Your task to perform on an android device: turn on data saver in the chrome app Image 0: 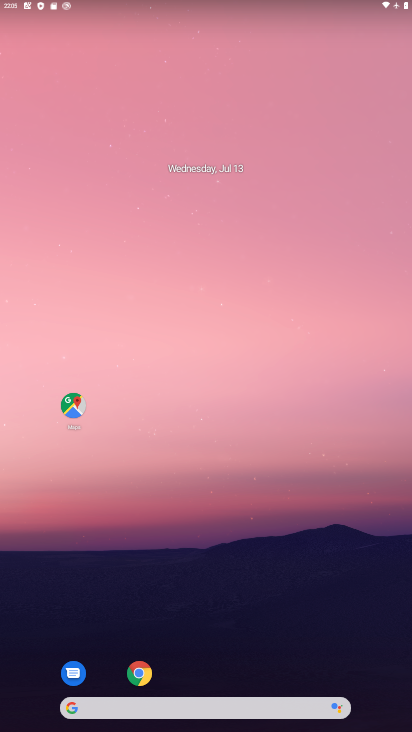
Step 0: click (147, 684)
Your task to perform on an android device: turn on data saver in the chrome app Image 1: 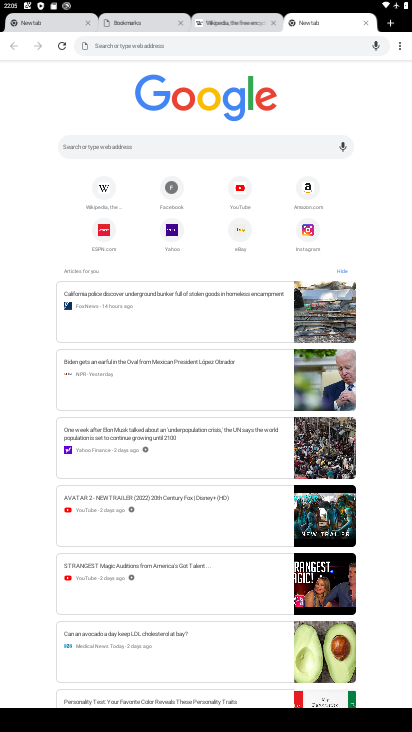
Step 1: click (402, 33)
Your task to perform on an android device: turn on data saver in the chrome app Image 2: 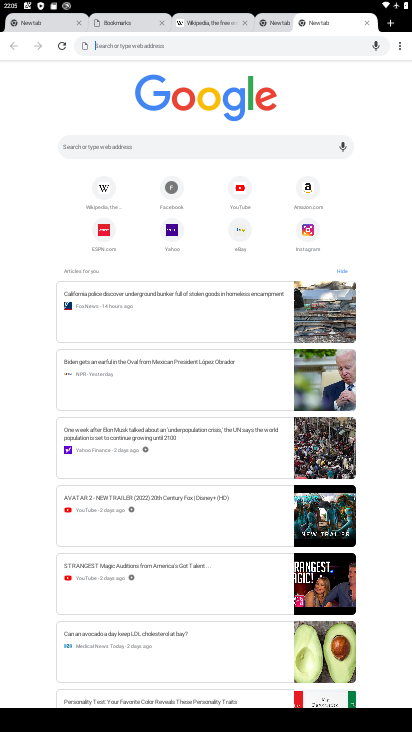
Step 2: click (399, 47)
Your task to perform on an android device: turn on data saver in the chrome app Image 3: 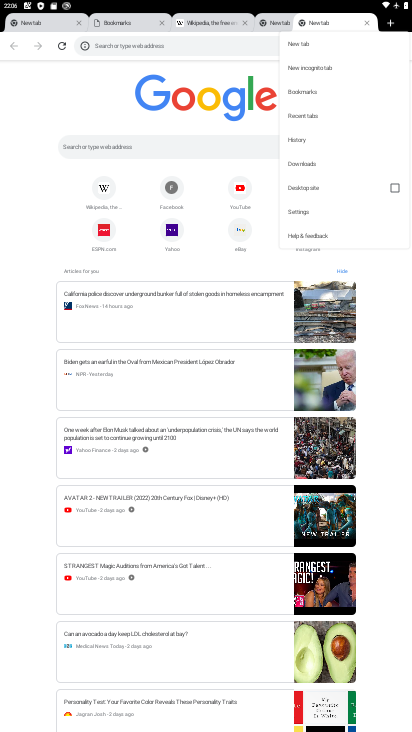
Step 3: click (307, 211)
Your task to perform on an android device: turn on data saver in the chrome app Image 4: 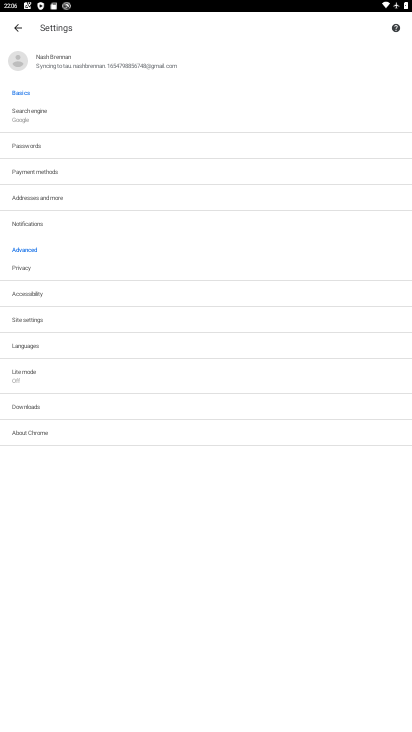
Step 4: click (40, 368)
Your task to perform on an android device: turn on data saver in the chrome app Image 5: 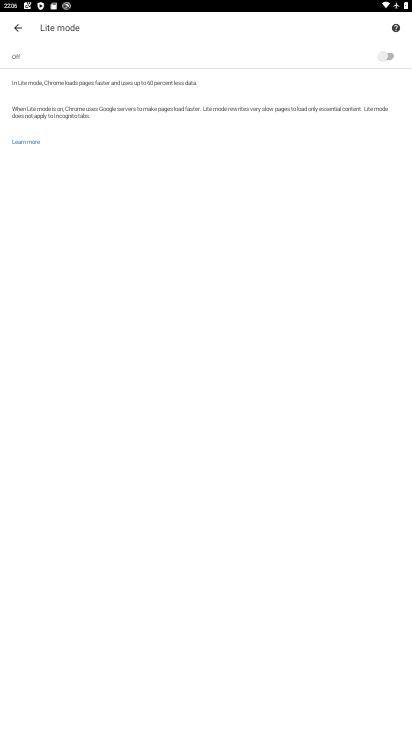
Step 5: click (390, 51)
Your task to perform on an android device: turn on data saver in the chrome app Image 6: 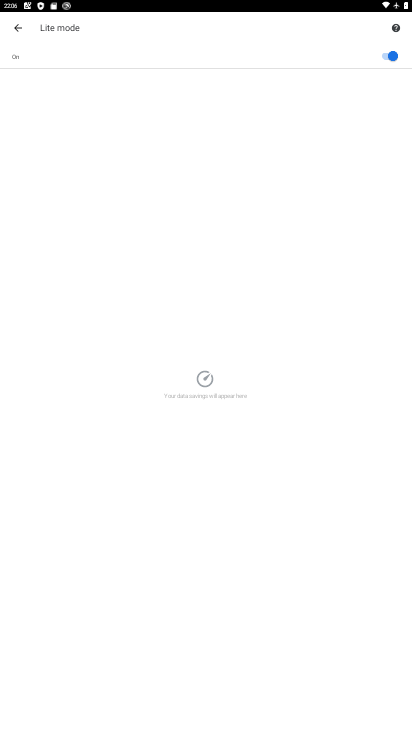
Step 6: task complete